Your task to perform on an android device: turn on translation in the chrome app Image 0: 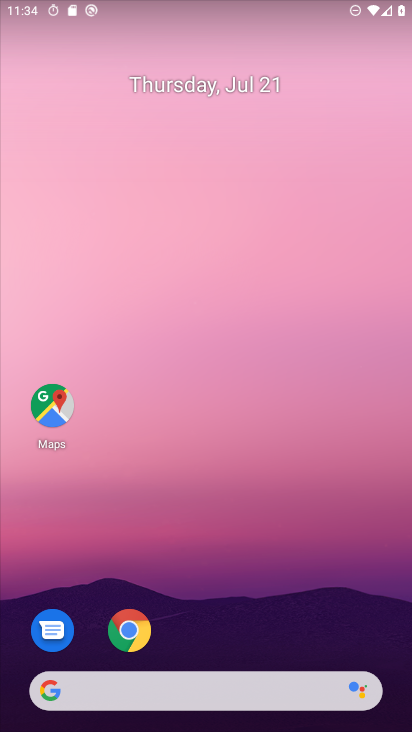
Step 0: press home button
Your task to perform on an android device: turn on translation in the chrome app Image 1: 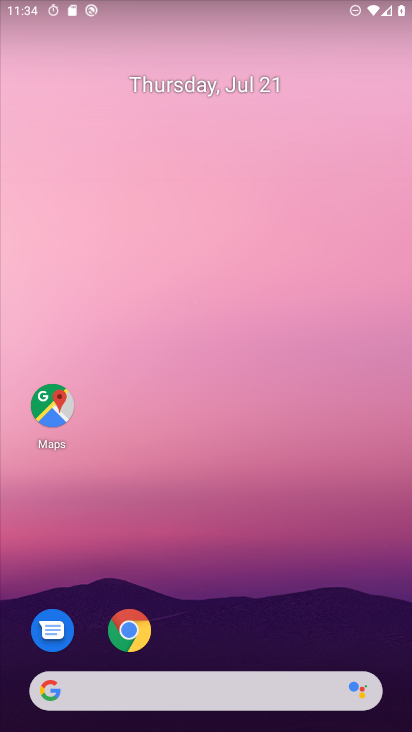
Step 1: click (125, 629)
Your task to perform on an android device: turn on translation in the chrome app Image 2: 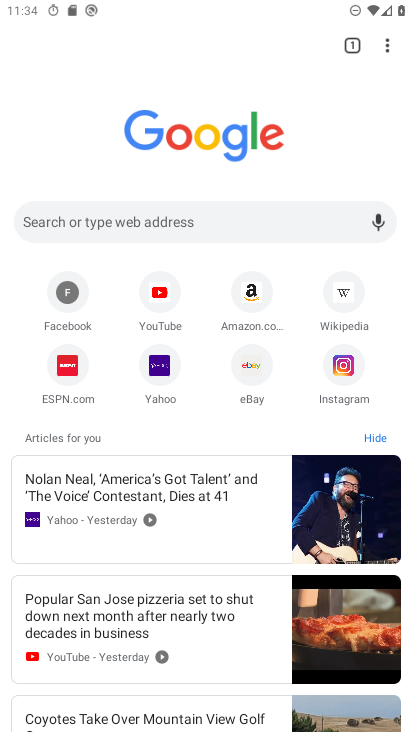
Step 2: drag from (388, 45) to (241, 436)
Your task to perform on an android device: turn on translation in the chrome app Image 3: 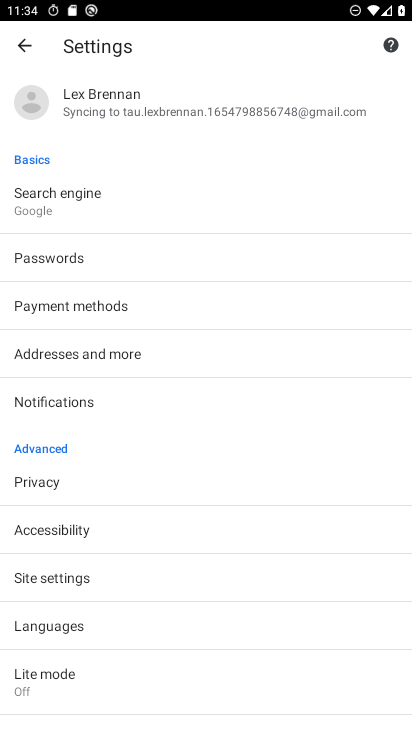
Step 3: drag from (250, 455) to (252, 34)
Your task to perform on an android device: turn on translation in the chrome app Image 4: 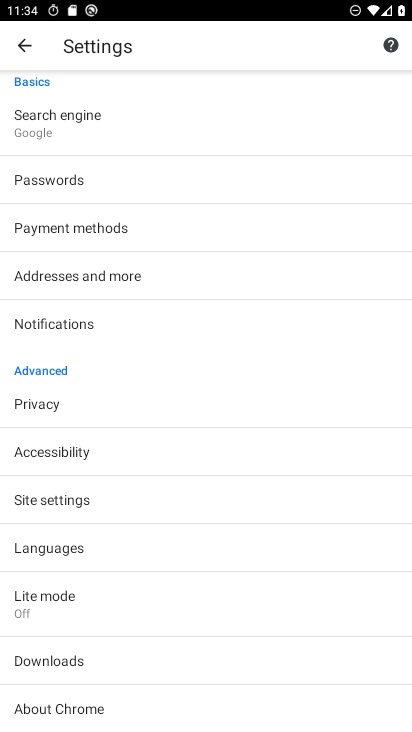
Step 4: click (87, 543)
Your task to perform on an android device: turn on translation in the chrome app Image 5: 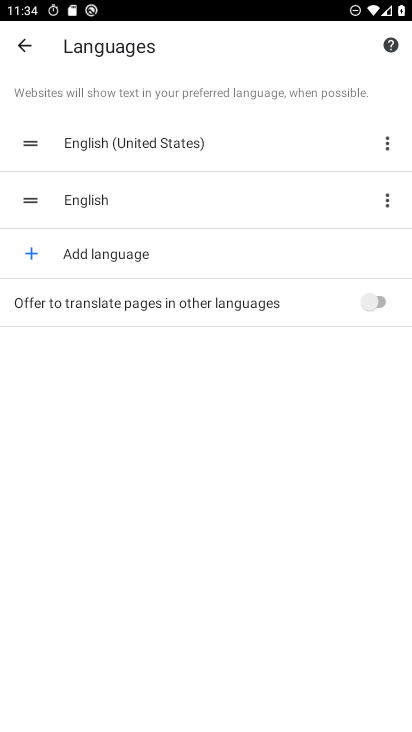
Step 5: click (375, 299)
Your task to perform on an android device: turn on translation in the chrome app Image 6: 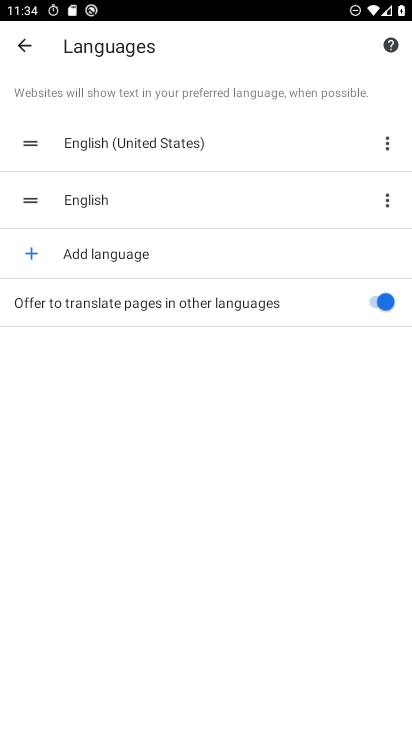
Step 6: task complete